Your task to perform on an android device: turn on sleep mode Image 0: 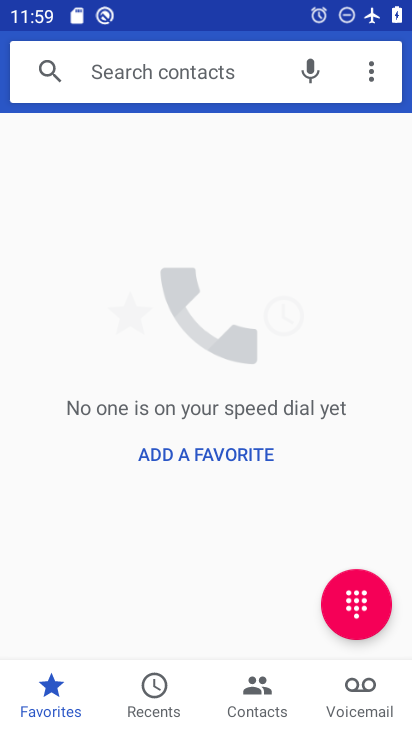
Step 0: press home button
Your task to perform on an android device: turn on sleep mode Image 1: 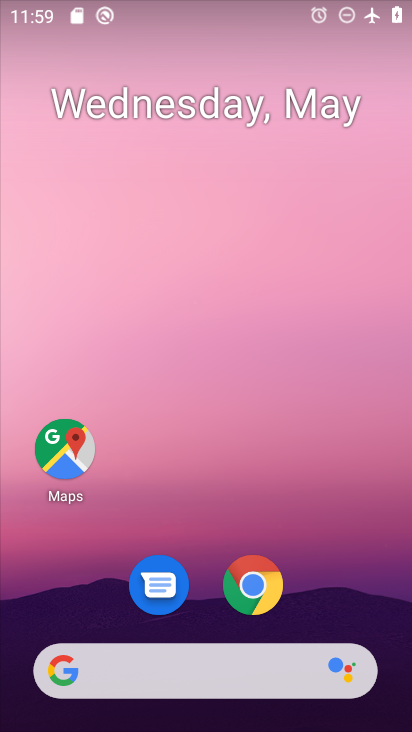
Step 1: drag from (216, 485) to (207, 114)
Your task to perform on an android device: turn on sleep mode Image 2: 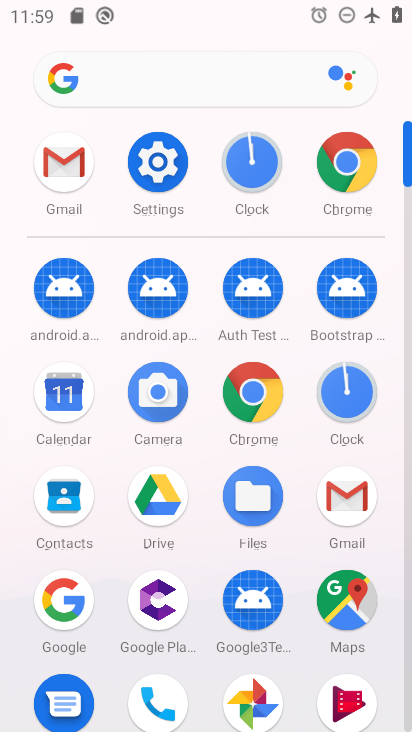
Step 2: click (172, 154)
Your task to perform on an android device: turn on sleep mode Image 3: 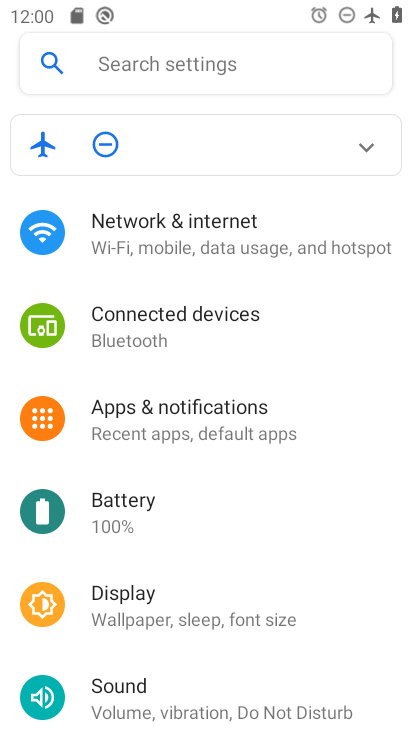
Step 3: click (229, 606)
Your task to perform on an android device: turn on sleep mode Image 4: 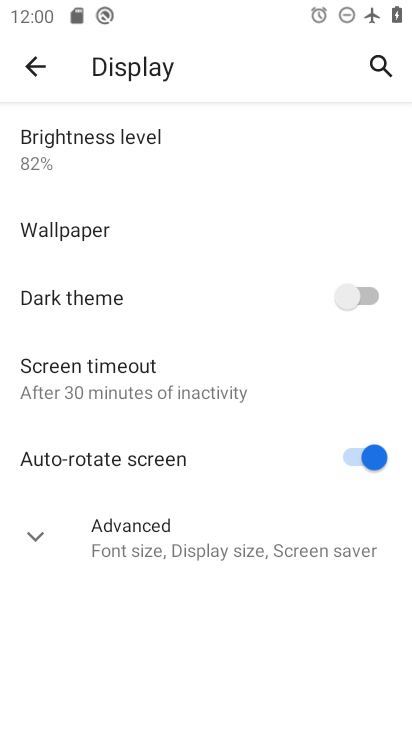
Step 4: click (37, 527)
Your task to perform on an android device: turn on sleep mode Image 5: 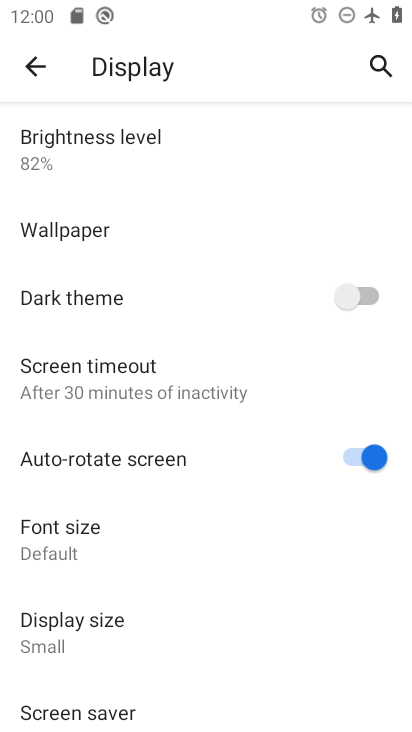
Step 5: task complete